Your task to perform on an android device: Open settings on Google Maps Image 0: 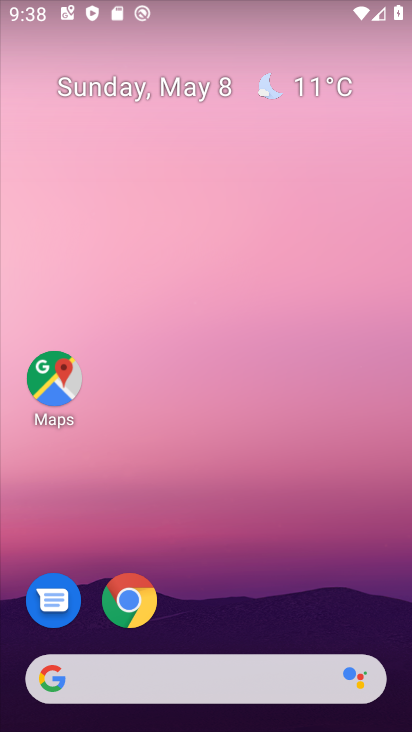
Step 0: drag from (324, 587) to (187, 23)
Your task to perform on an android device: Open settings on Google Maps Image 1: 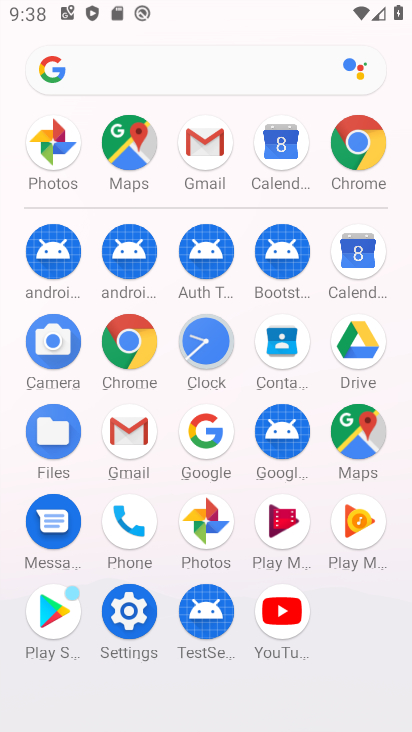
Step 1: drag from (6, 620) to (10, 370)
Your task to perform on an android device: Open settings on Google Maps Image 2: 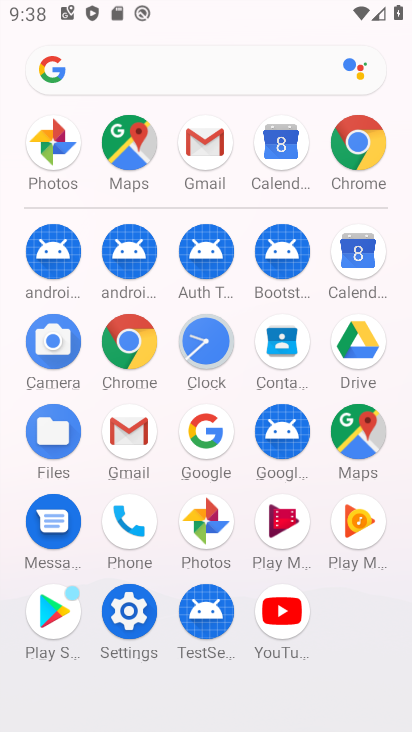
Step 2: click (355, 427)
Your task to perform on an android device: Open settings on Google Maps Image 3: 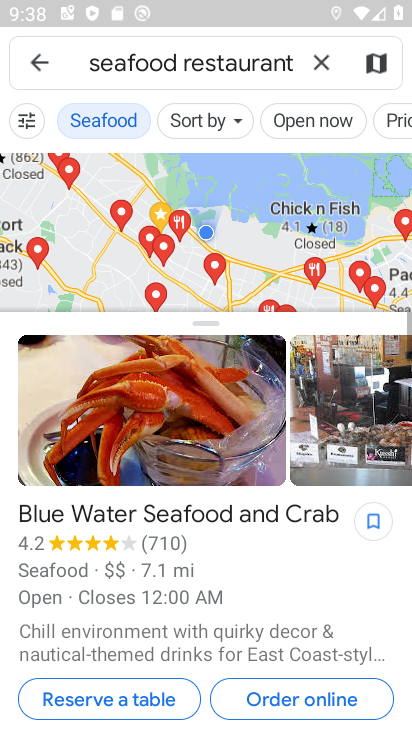
Step 3: click (33, 66)
Your task to perform on an android device: Open settings on Google Maps Image 4: 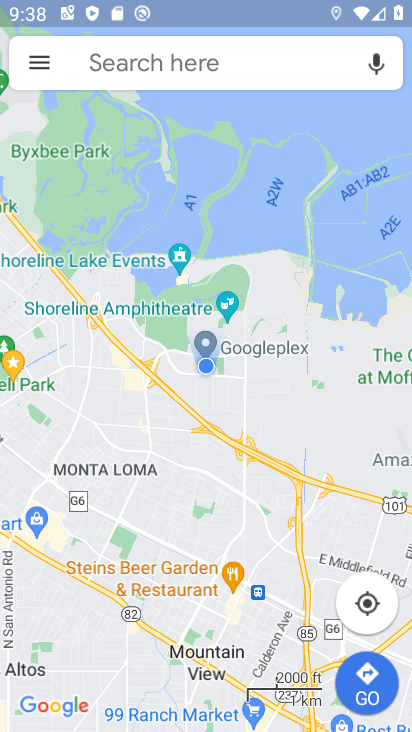
Step 4: click (33, 66)
Your task to perform on an android device: Open settings on Google Maps Image 5: 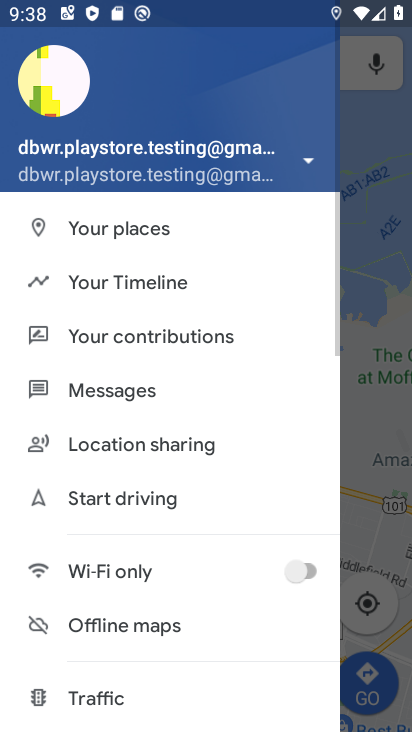
Step 5: drag from (112, 648) to (116, 249)
Your task to perform on an android device: Open settings on Google Maps Image 6: 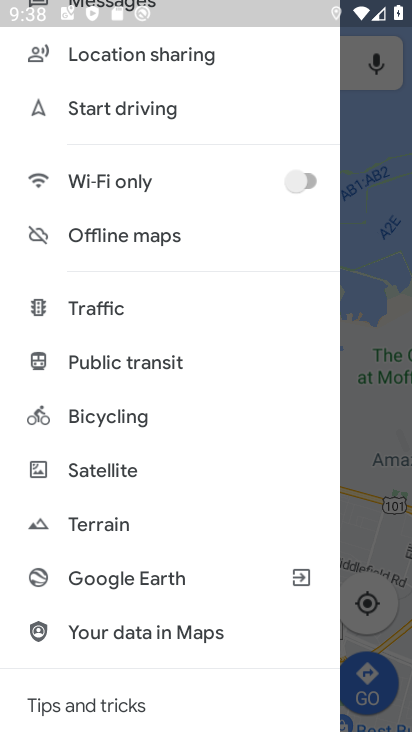
Step 6: drag from (125, 640) to (172, 206)
Your task to perform on an android device: Open settings on Google Maps Image 7: 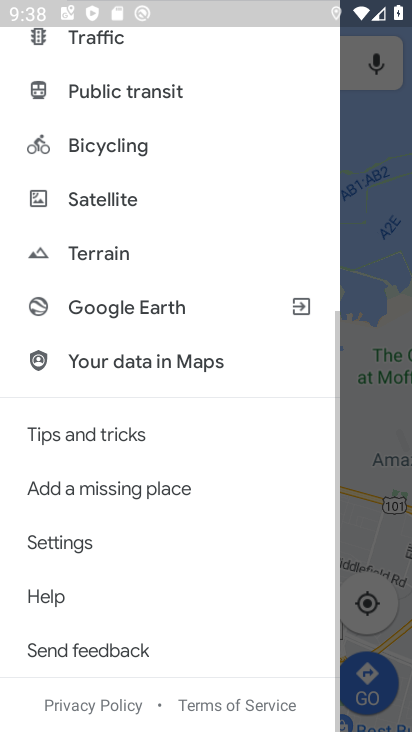
Step 7: click (71, 543)
Your task to perform on an android device: Open settings on Google Maps Image 8: 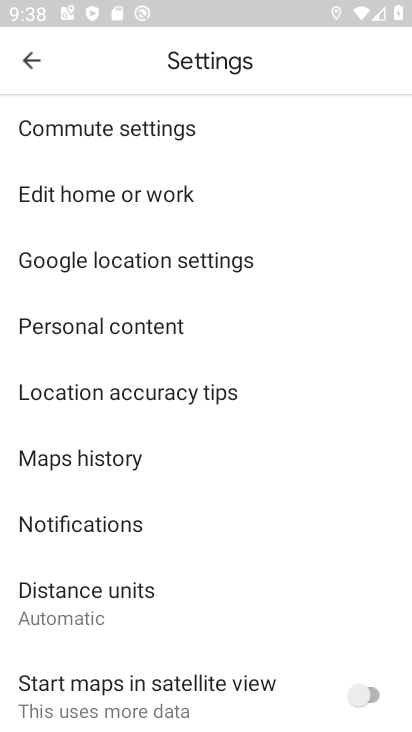
Step 8: task complete